Your task to perform on an android device: check storage Image 0: 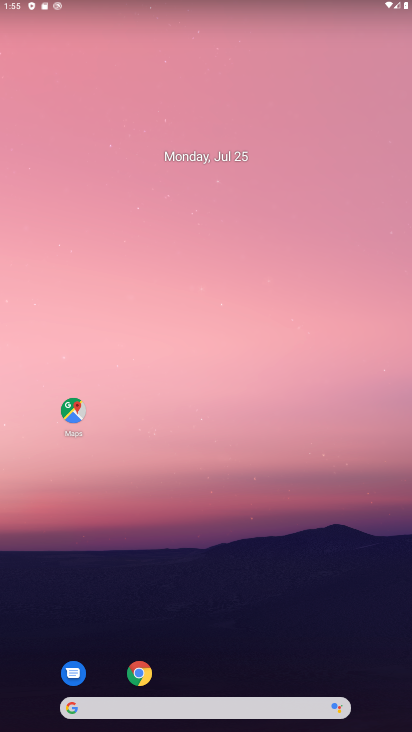
Step 0: drag from (207, 10) to (197, 653)
Your task to perform on an android device: check storage Image 1: 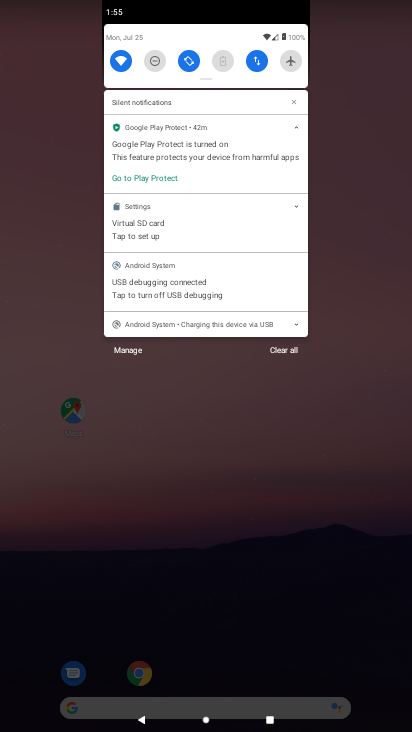
Step 1: click (222, 63)
Your task to perform on an android device: check storage Image 2: 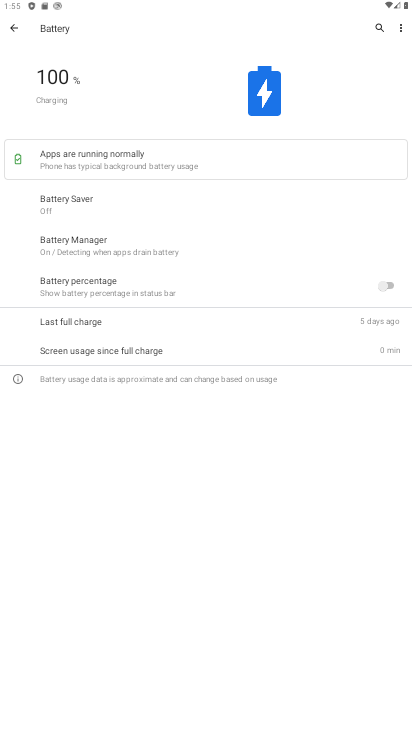
Step 2: task complete